Your task to perform on an android device: open chrome and create a bookmark for the current page Image 0: 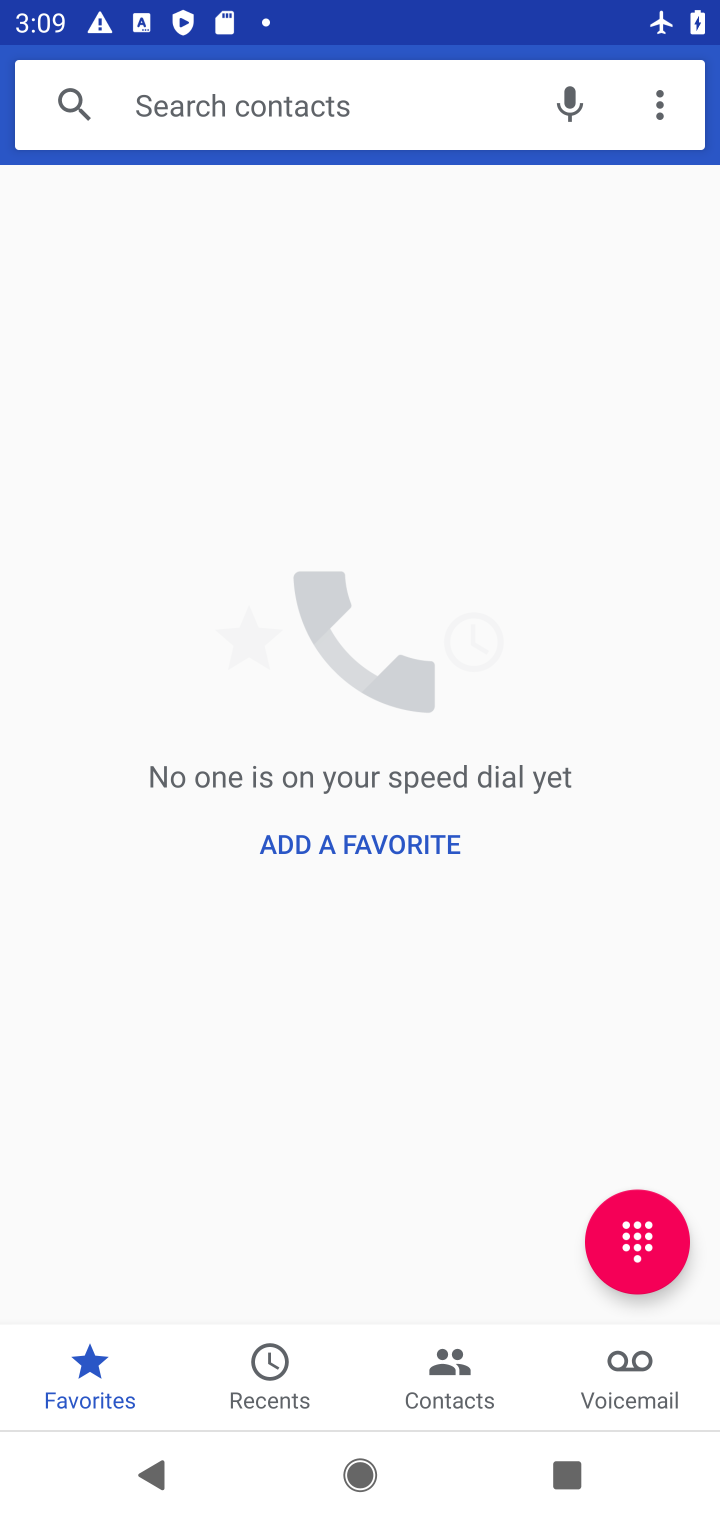
Step 0: press home button
Your task to perform on an android device: open chrome and create a bookmark for the current page Image 1: 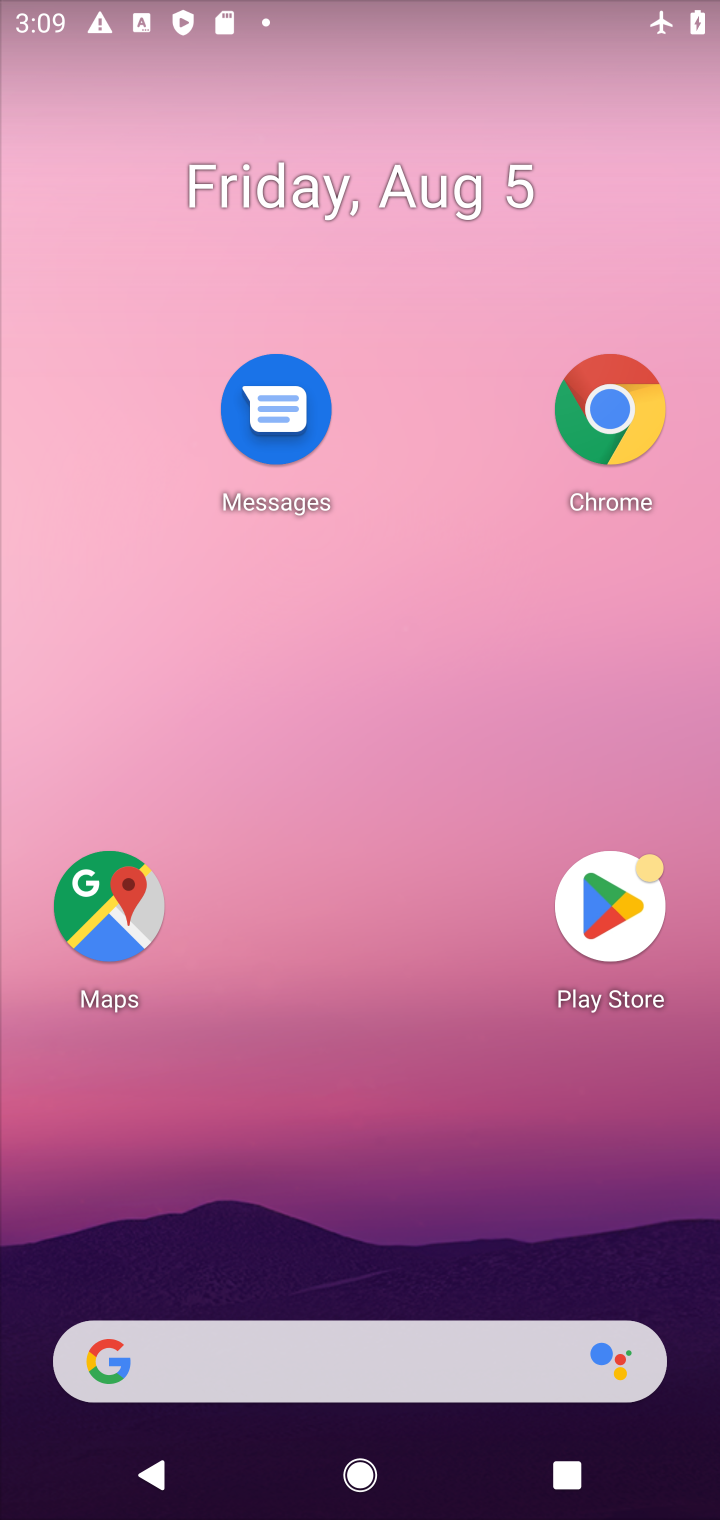
Step 1: click (605, 450)
Your task to perform on an android device: open chrome and create a bookmark for the current page Image 2: 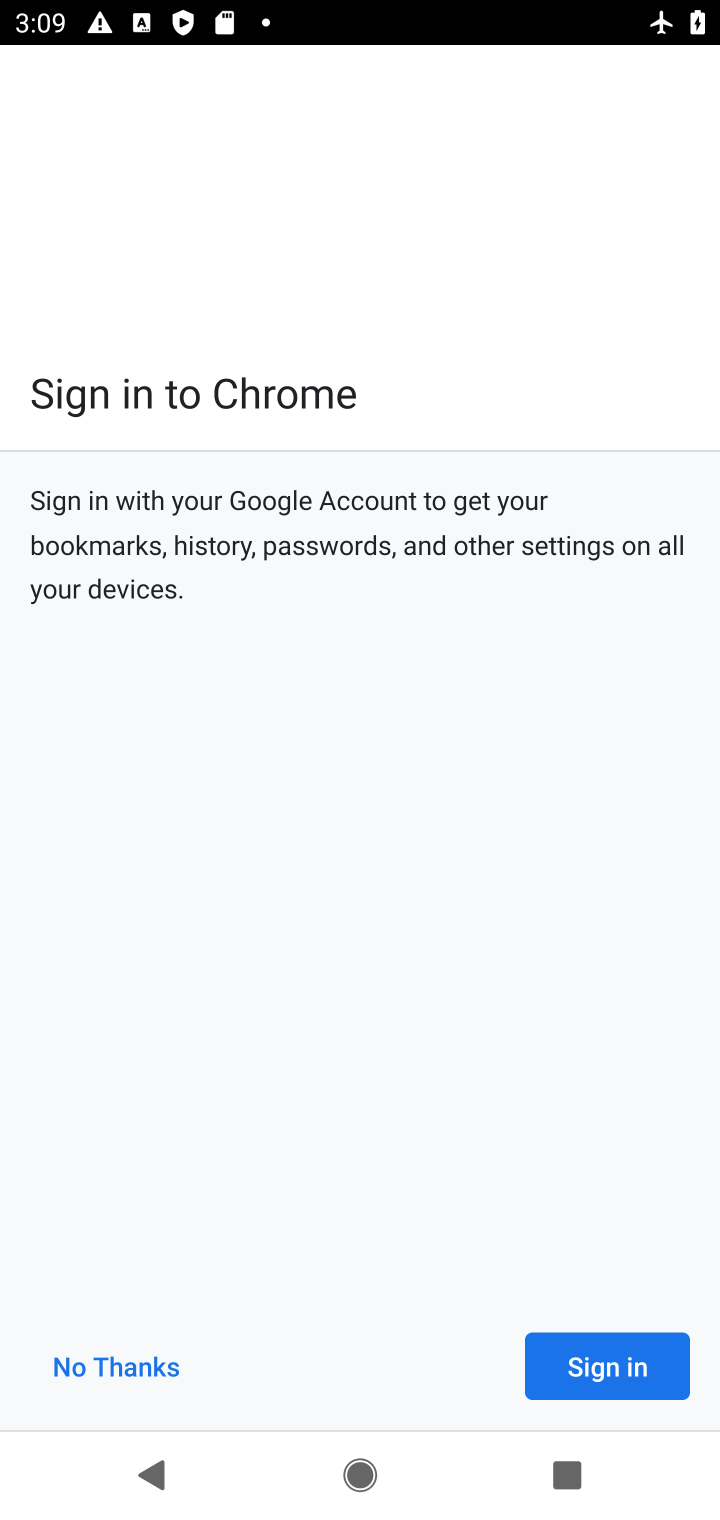
Step 2: click (95, 1357)
Your task to perform on an android device: open chrome and create a bookmark for the current page Image 3: 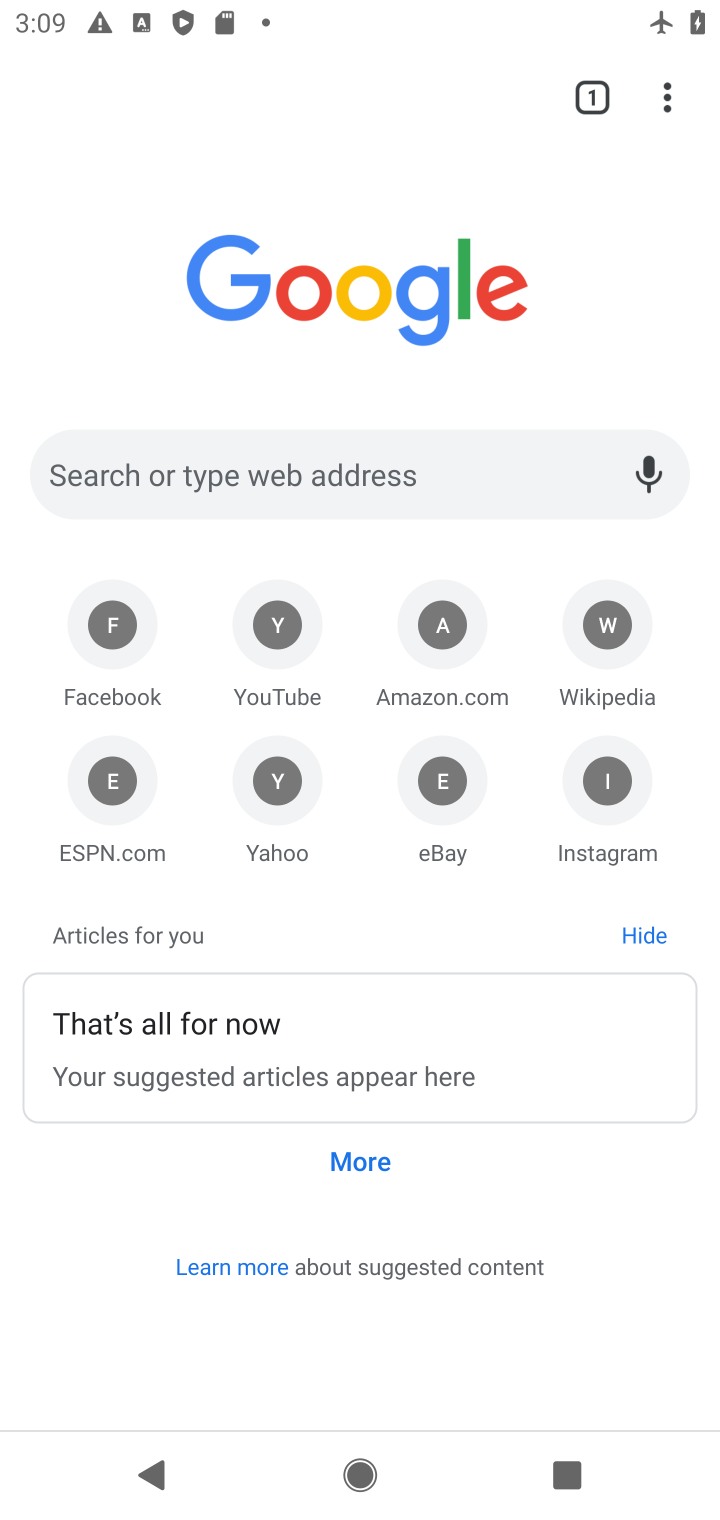
Step 3: task complete